Your task to perform on an android device: Clear all items from cart on ebay.com. Search for "macbook" on ebay.com, select the first entry, add it to the cart, then select checkout. Image 0: 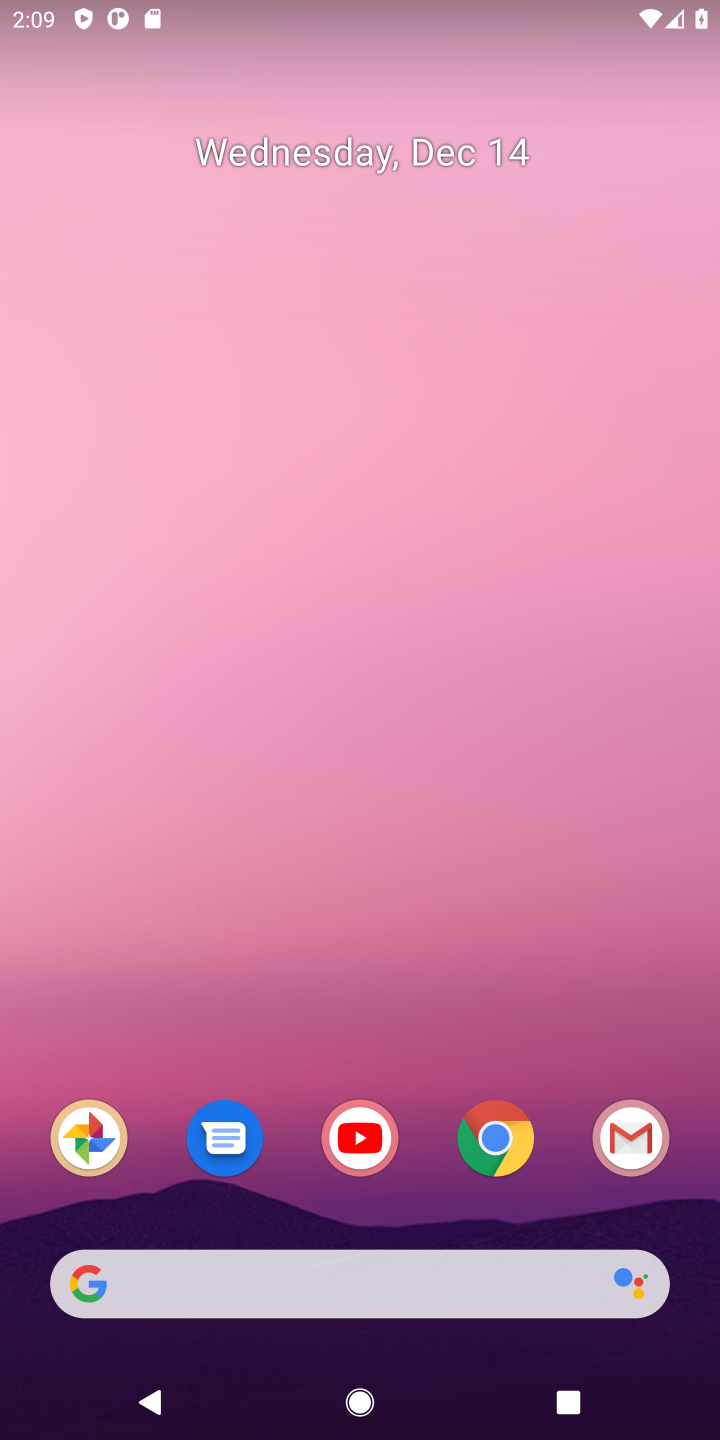
Step 0: click (497, 1146)
Your task to perform on an android device: Clear all items from cart on ebay.com. Search for "macbook" on ebay.com, select the first entry, add it to the cart, then select checkout. Image 1: 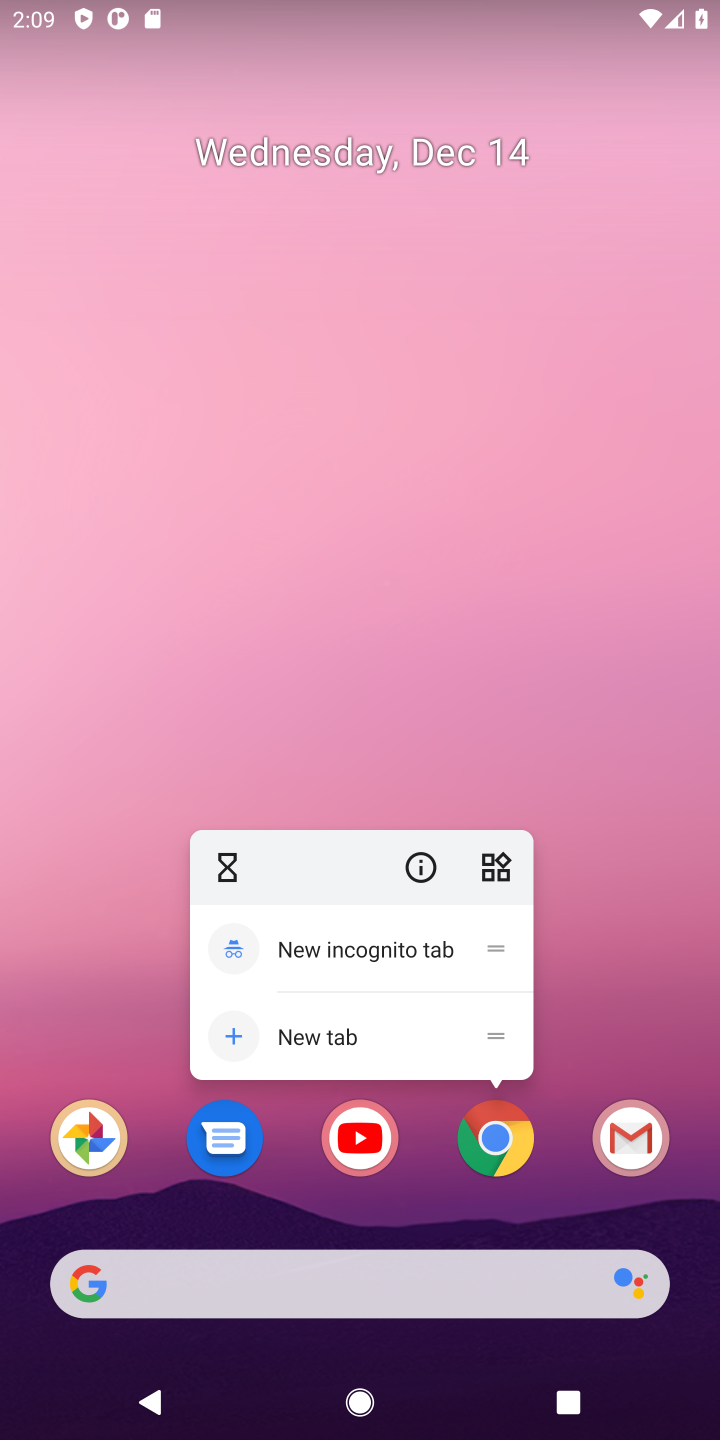
Step 1: click (502, 1138)
Your task to perform on an android device: Clear all items from cart on ebay.com. Search for "macbook" on ebay.com, select the first entry, add it to the cart, then select checkout. Image 2: 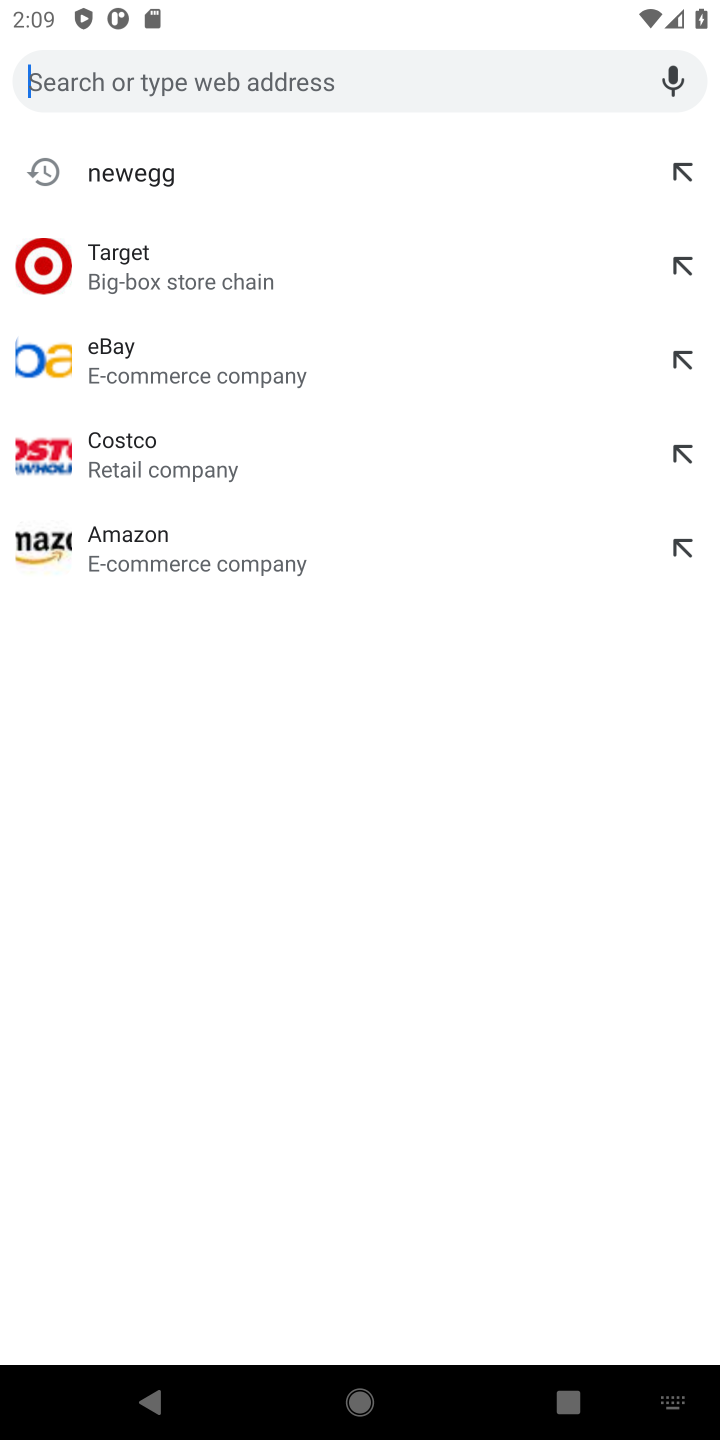
Step 2: click (267, 386)
Your task to perform on an android device: Clear all items from cart on ebay.com. Search for "macbook" on ebay.com, select the first entry, add it to the cart, then select checkout. Image 3: 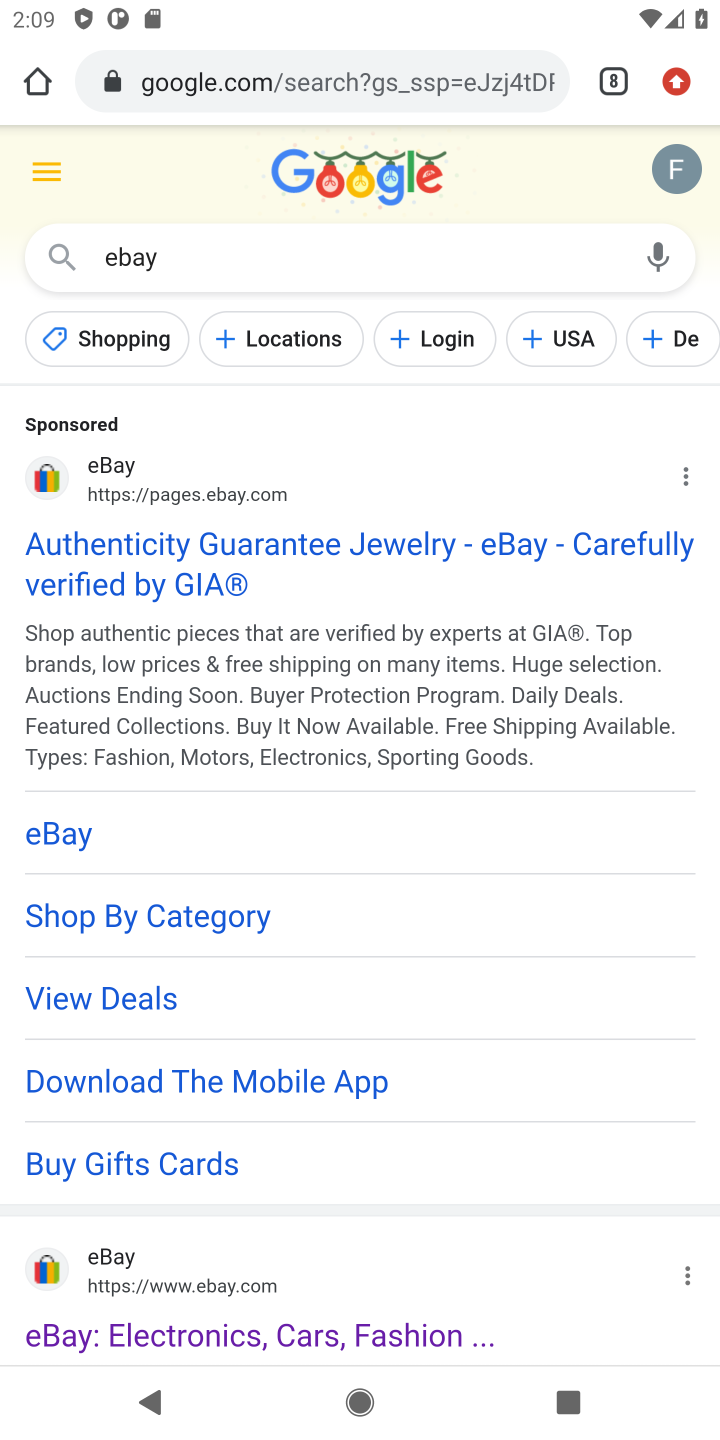
Step 3: click (68, 836)
Your task to perform on an android device: Clear all items from cart on ebay.com. Search for "macbook" on ebay.com, select the first entry, add it to the cart, then select checkout. Image 4: 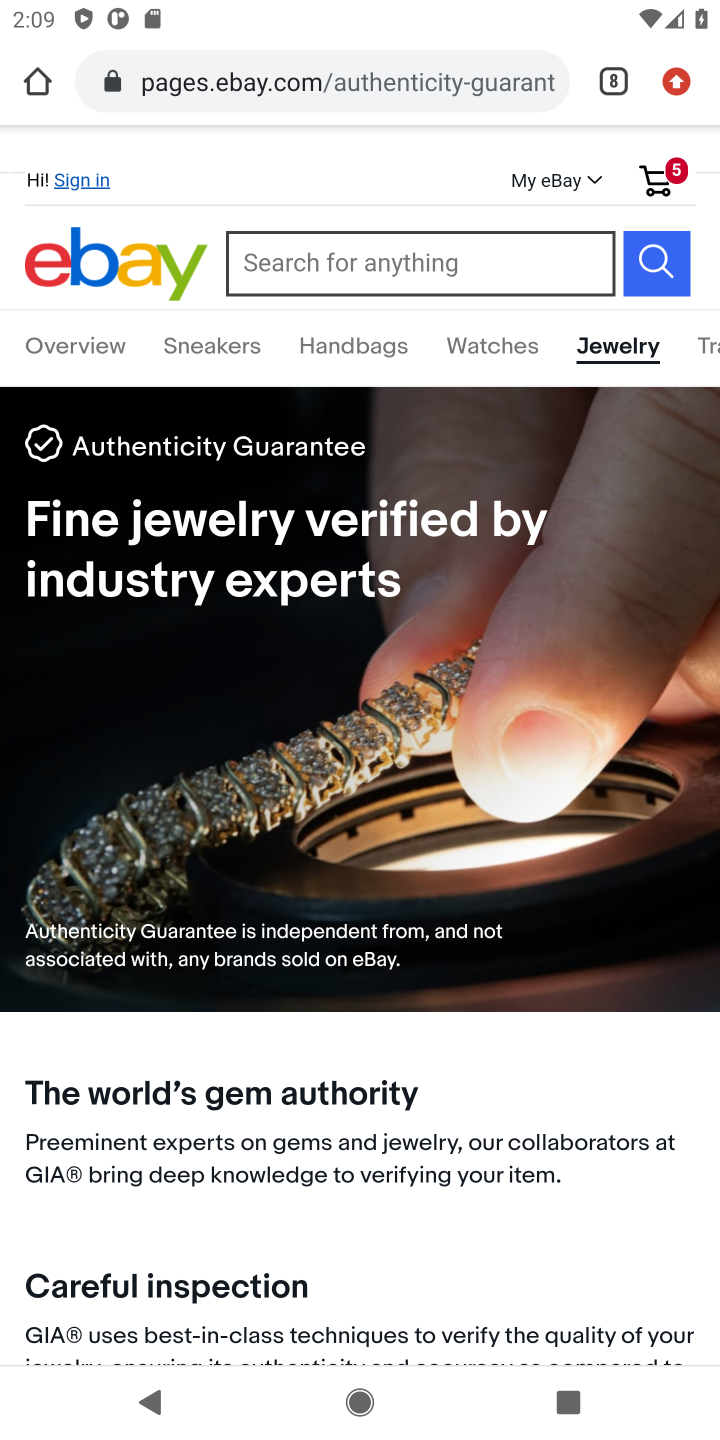
Step 4: click (662, 165)
Your task to perform on an android device: Clear all items from cart on ebay.com. Search for "macbook" on ebay.com, select the first entry, add it to the cart, then select checkout. Image 5: 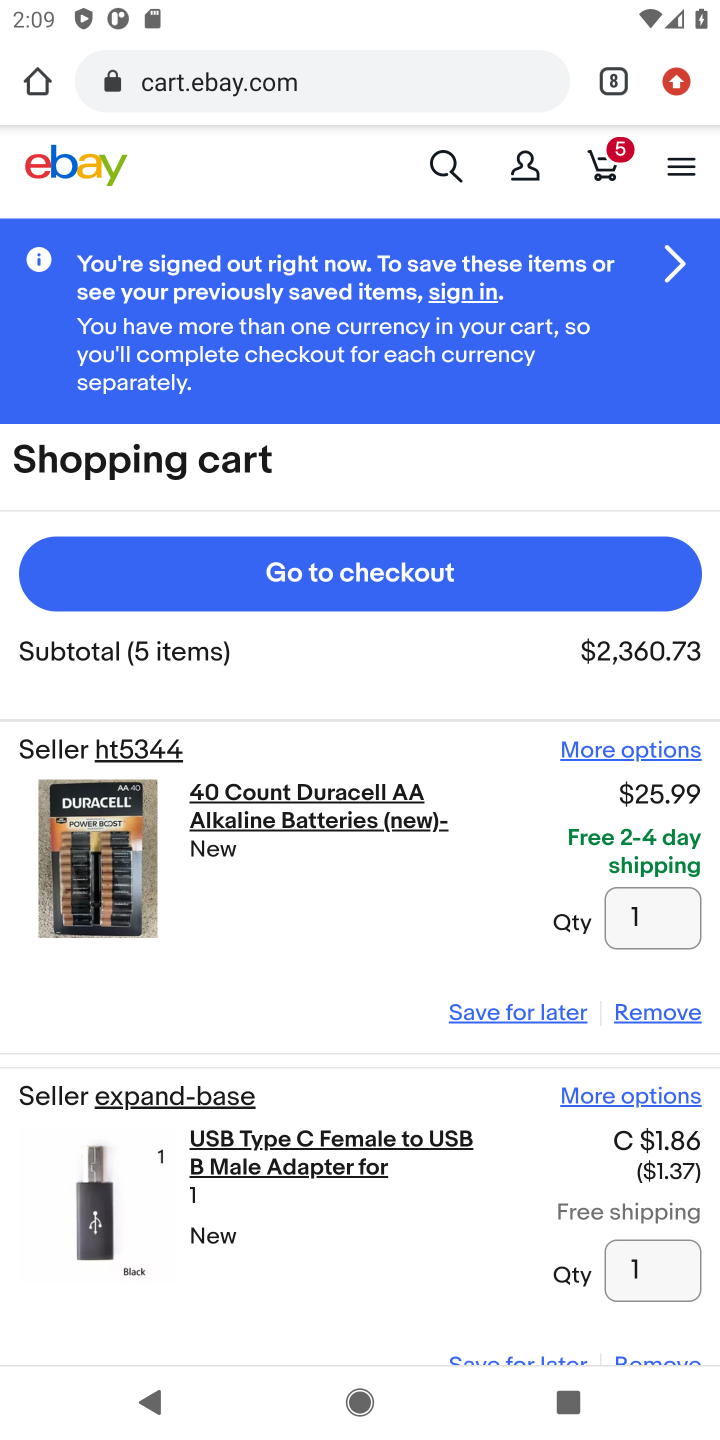
Step 5: click (663, 1011)
Your task to perform on an android device: Clear all items from cart on ebay.com. Search for "macbook" on ebay.com, select the first entry, add it to the cart, then select checkout. Image 6: 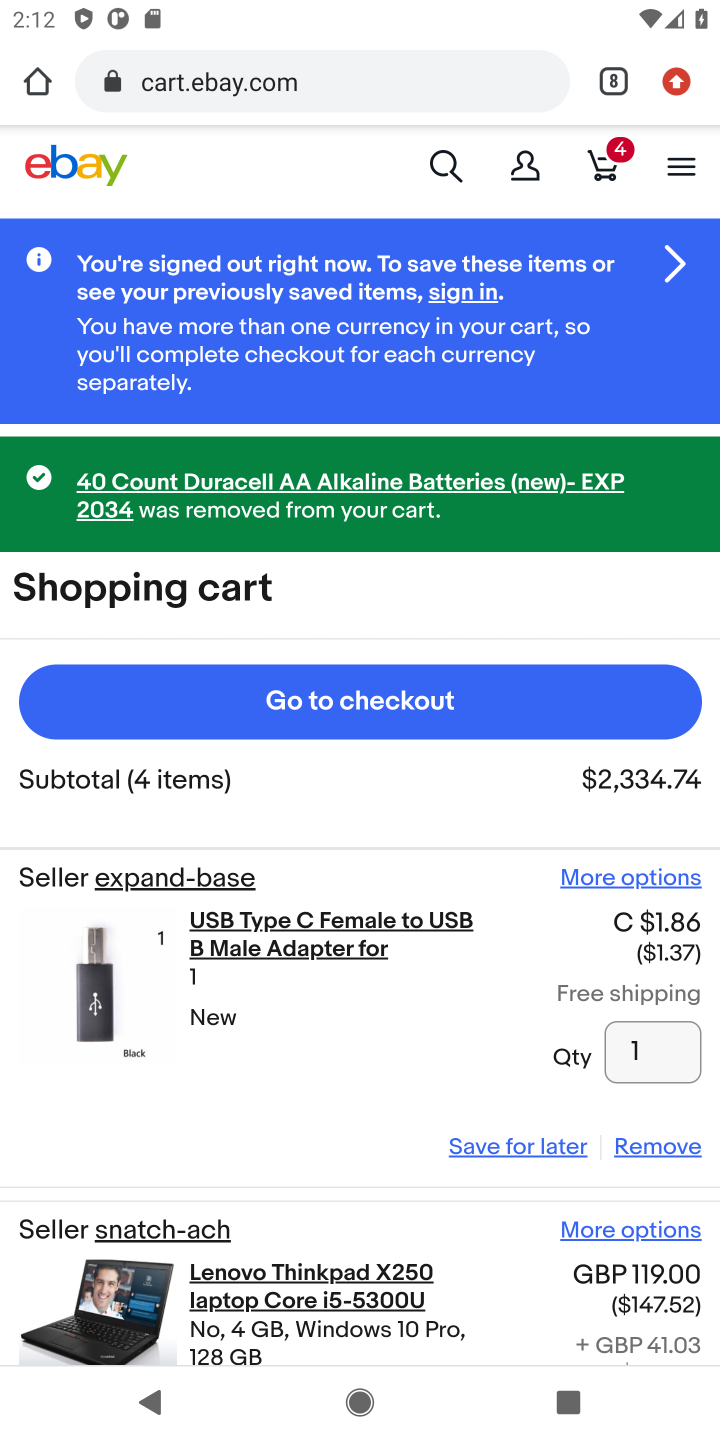
Step 6: click (446, 168)
Your task to perform on an android device: Clear all items from cart on ebay.com. Search for "macbook" on ebay.com, select the first entry, add it to the cart, then select checkout. Image 7: 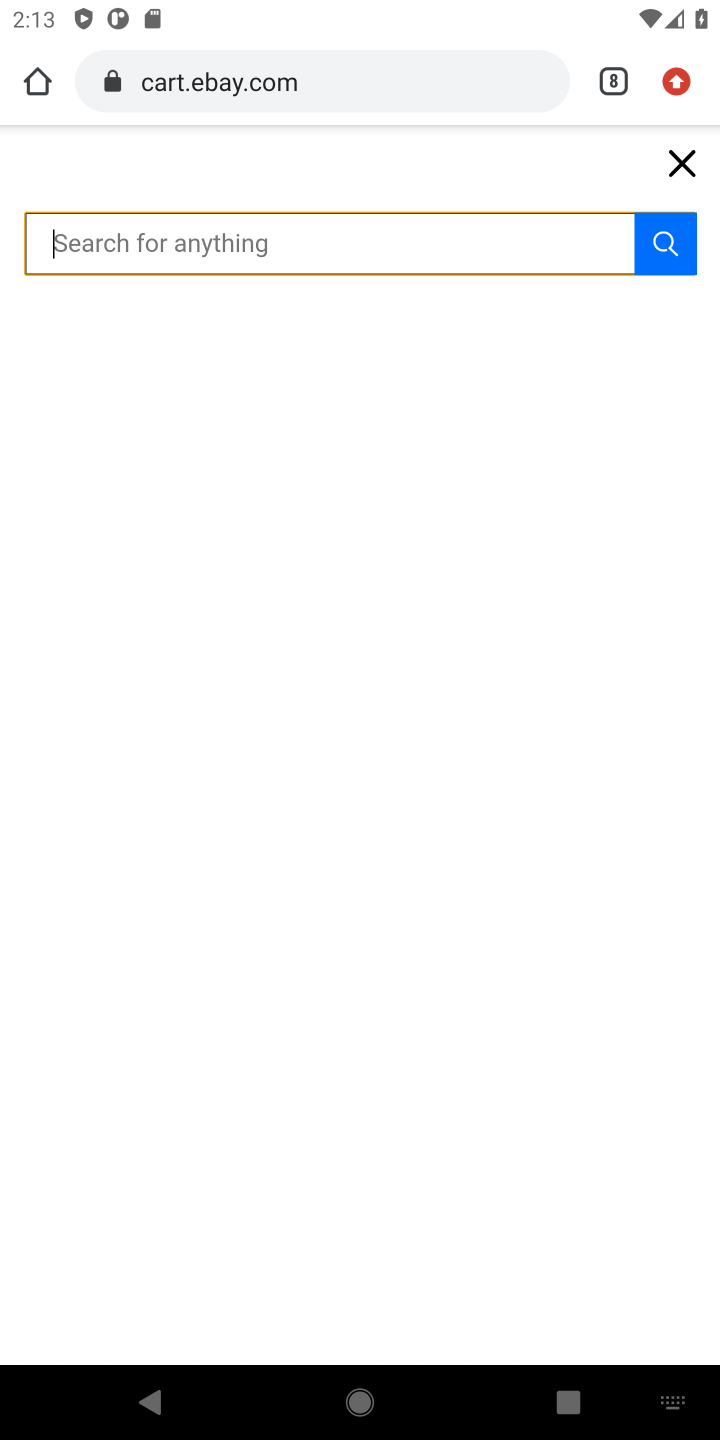
Step 7: type "macbook"
Your task to perform on an android device: Clear all items from cart on ebay.com. Search for "macbook" on ebay.com, select the first entry, add it to the cart, then select checkout. Image 8: 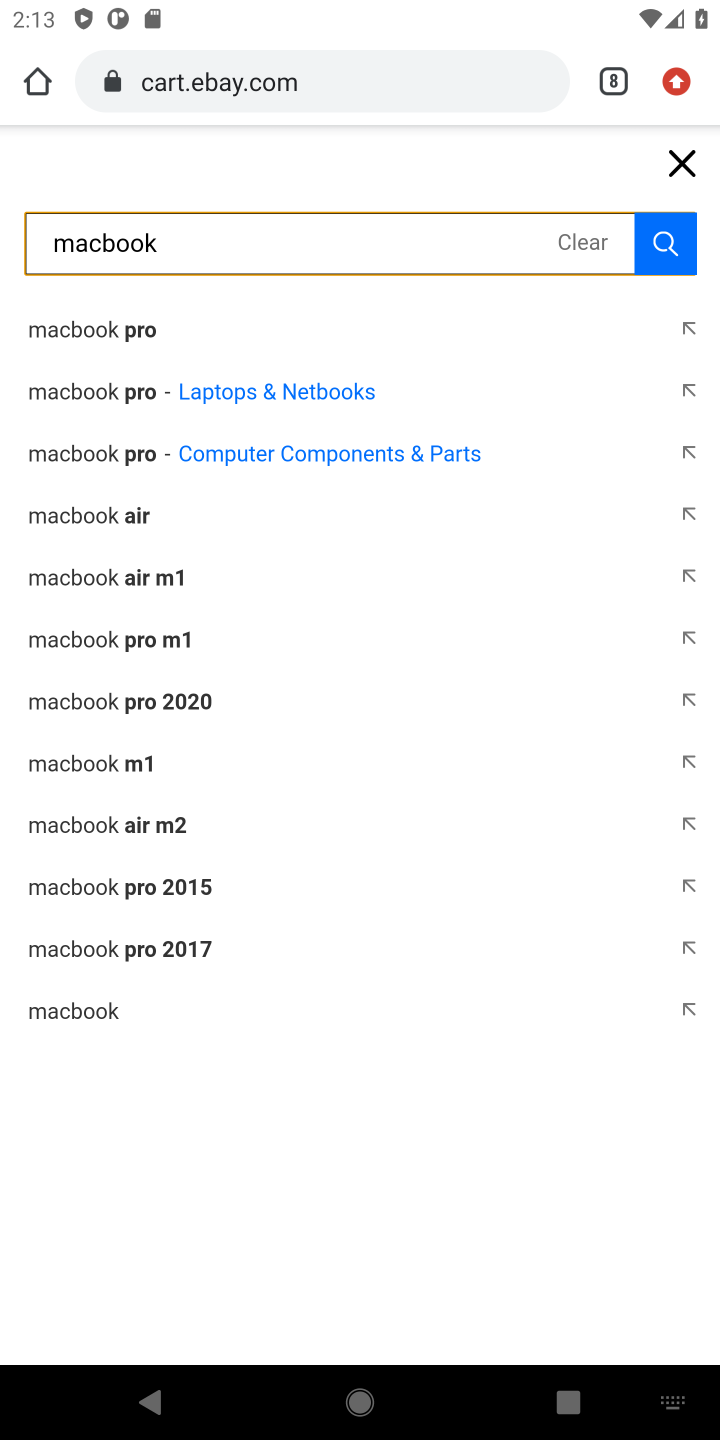
Step 8: click (144, 394)
Your task to perform on an android device: Clear all items from cart on ebay.com. Search for "macbook" on ebay.com, select the first entry, add it to the cart, then select checkout. Image 9: 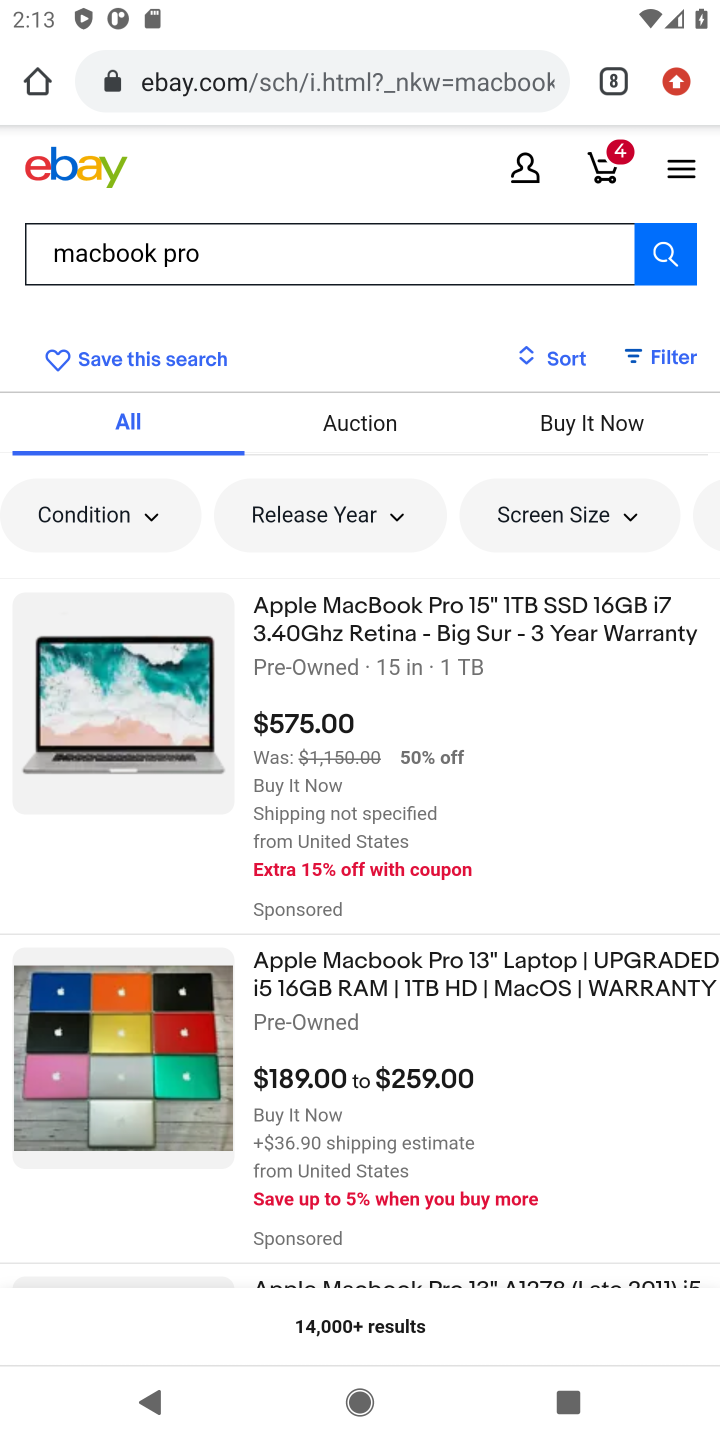
Step 9: click (513, 636)
Your task to perform on an android device: Clear all items from cart on ebay.com. Search for "macbook" on ebay.com, select the first entry, add it to the cart, then select checkout. Image 10: 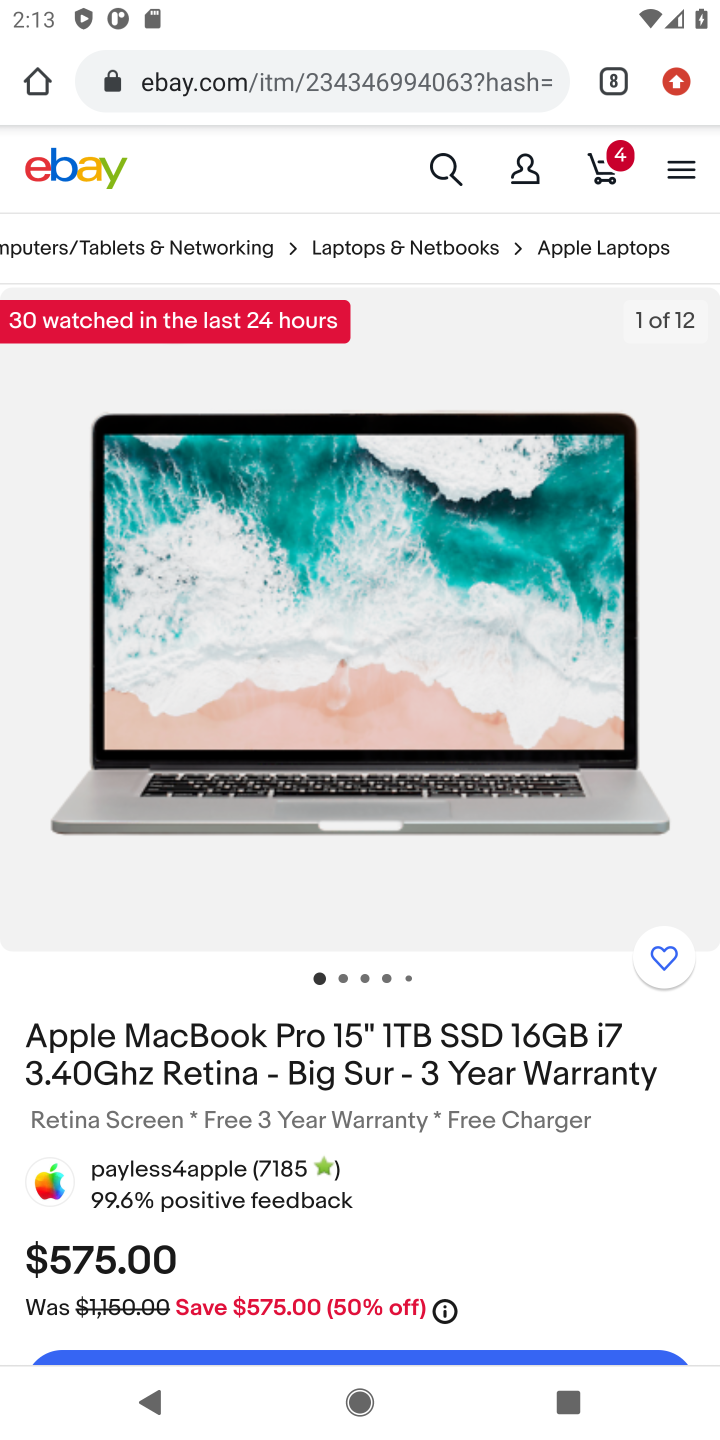
Step 10: drag from (520, 1216) to (390, 495)
Your task to perform on an android device: Clear all items from cart on ebay.com. Search for "macbook" on ebay.com, select the first entry, add it to the cart, then select checkout. Image 11: 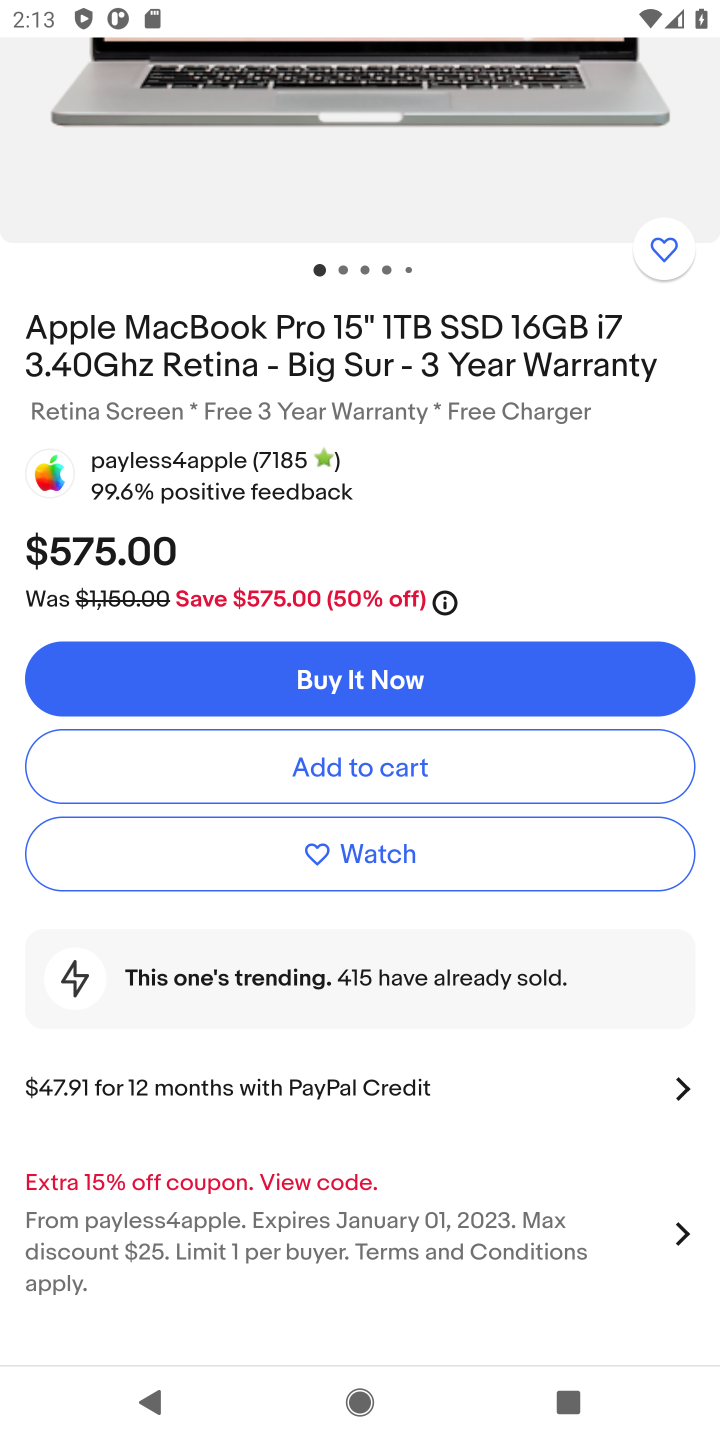
Step 11: click (442, 761)
Your task to perform on an android device: Clear all items from cart on ebay.com. Search for "macbook" on ebay.com, select the first entry, add it to the cart, then select checkout. Image 12: 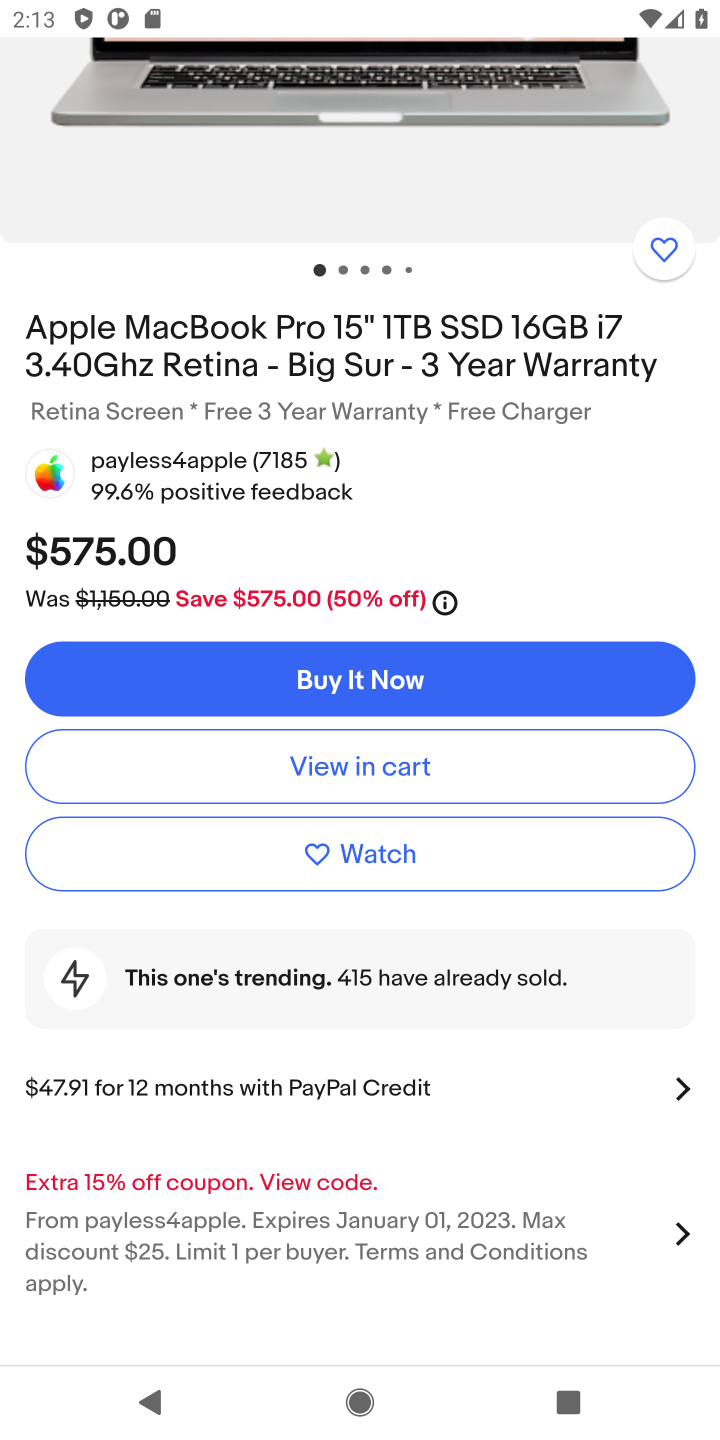
Step 12: task complete